Your task to perform on an android device: Play the latest video from the BBC Image 0: 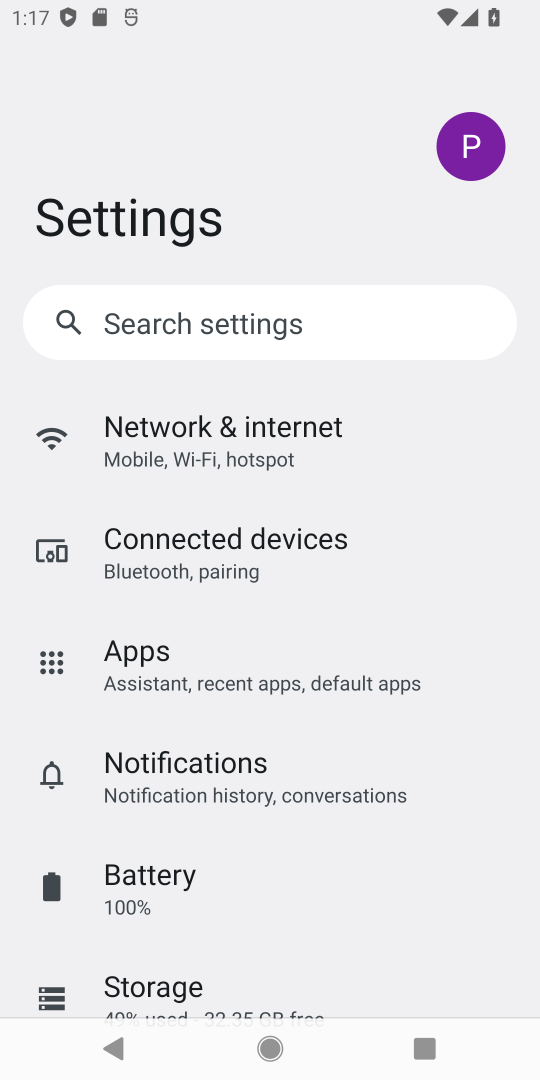
Step 0: press home button
Your task to perform on an android device: Play the latest video from the BBC Image 1: 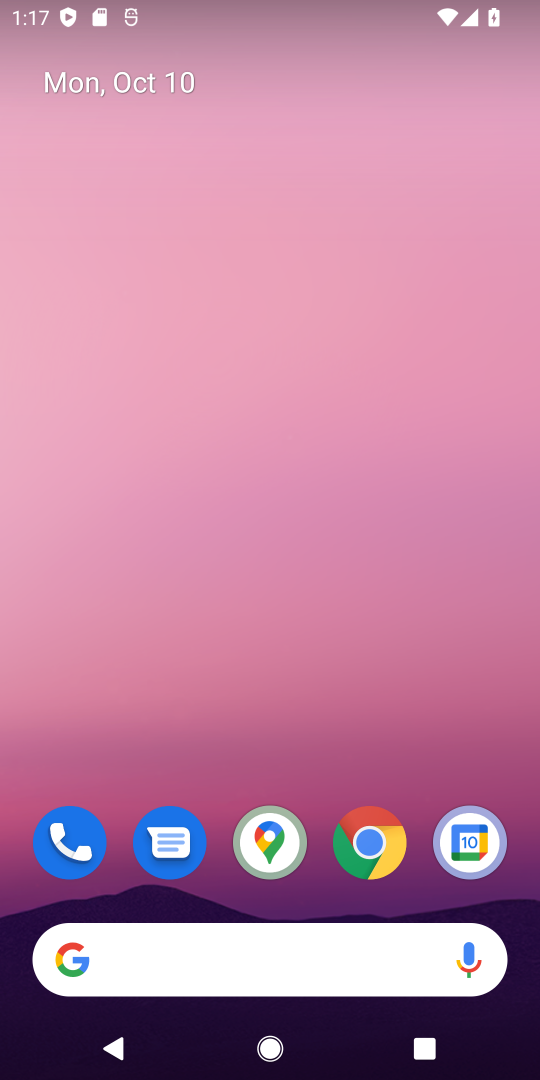
Step 1: click (381, 853)
Your task to perform on an android device: Play the latest video from the BBC Image 2: 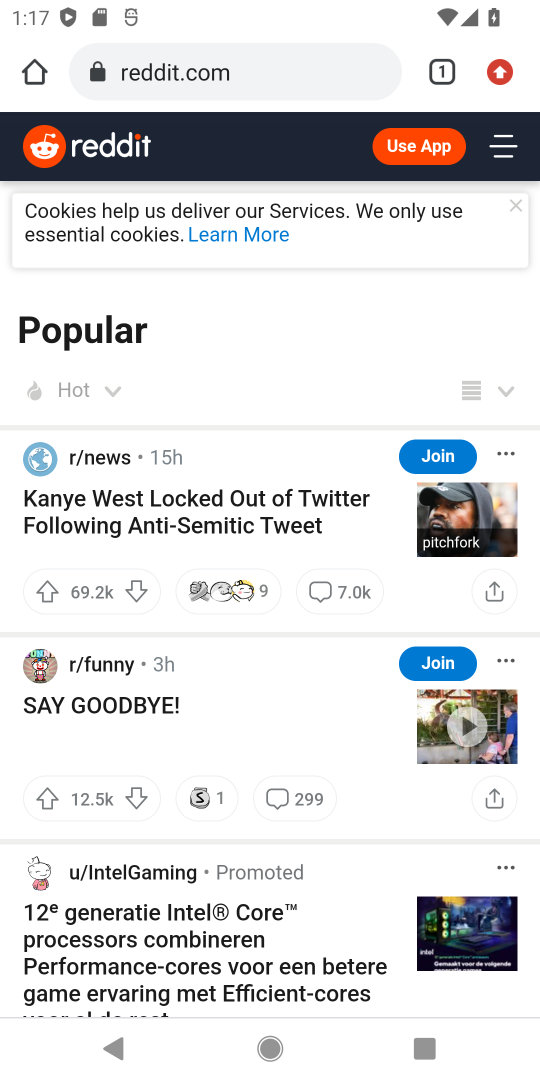
Step 2: click (259, 73)
Your task to perform on an android device: Play the latest video from the BBC Image 3: 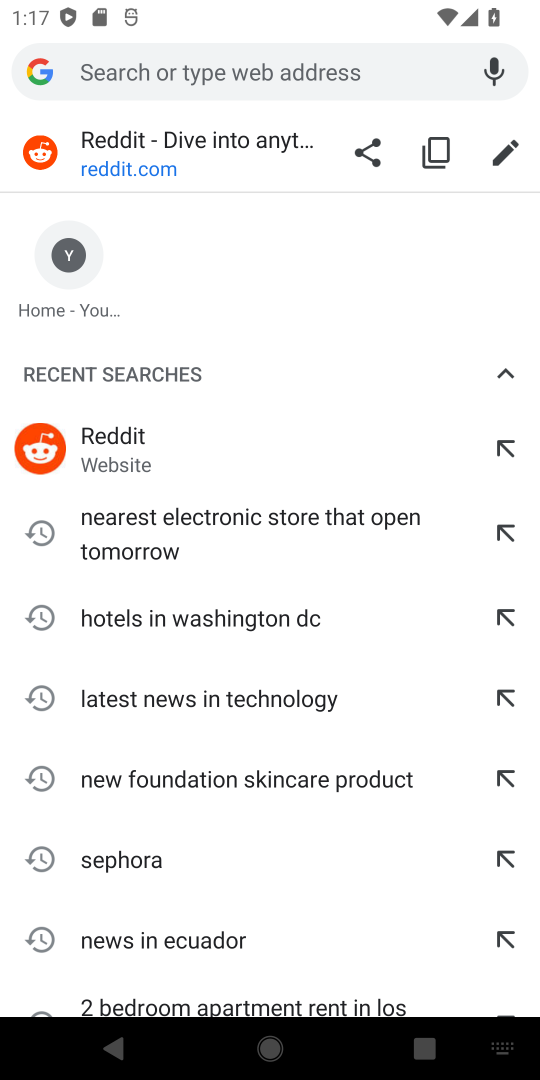
Step 3: press back button
Your task to perform on an android device: Play the latest video from the BBC Image 4: 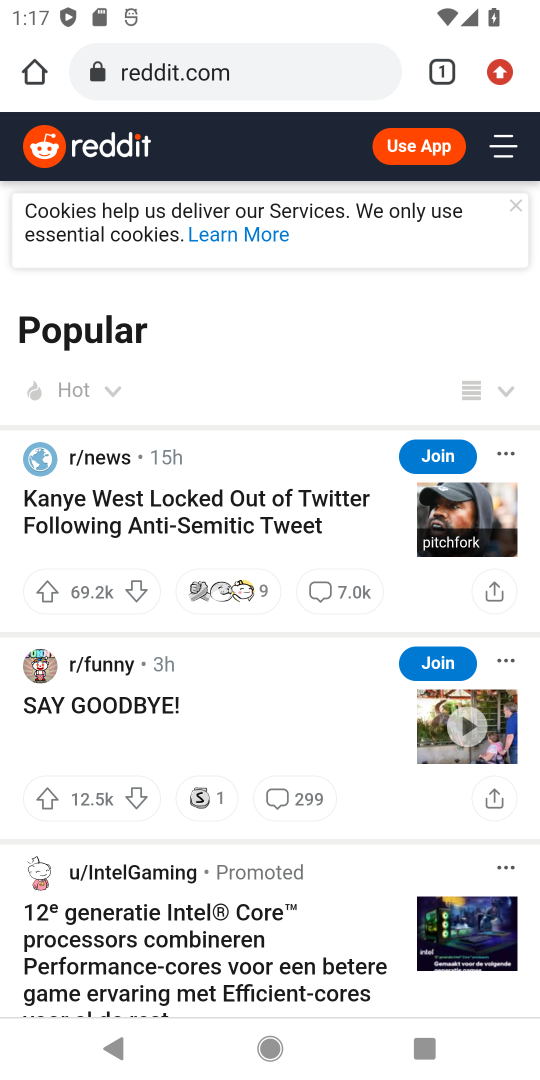
Step 4: click (27, 73)
Your task to perform on an android device: Play the latest video from the BBC Image 5: 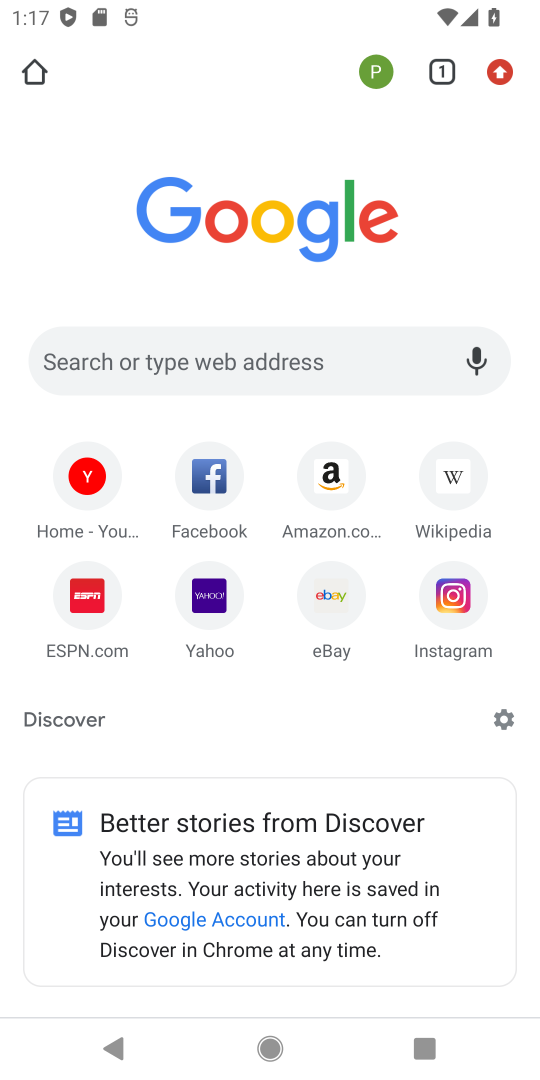
Step 5: click (214, 353)
Your task to perform on an android device: Play the latest video from the BBC Image 6: 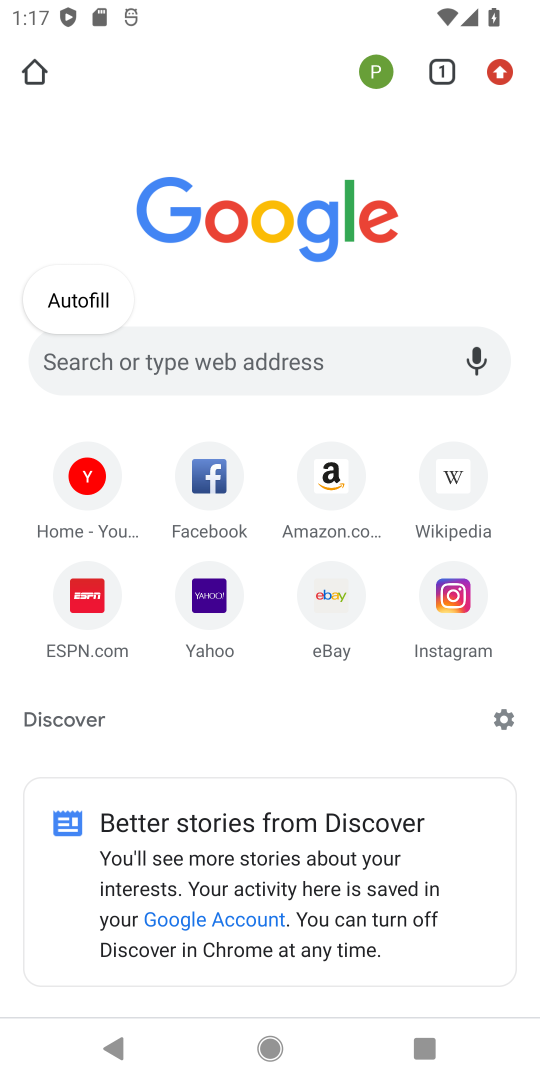
Step 6: click (224, 348)
Your task to perform on an android device: Play the latest video from the BBC Image 7: 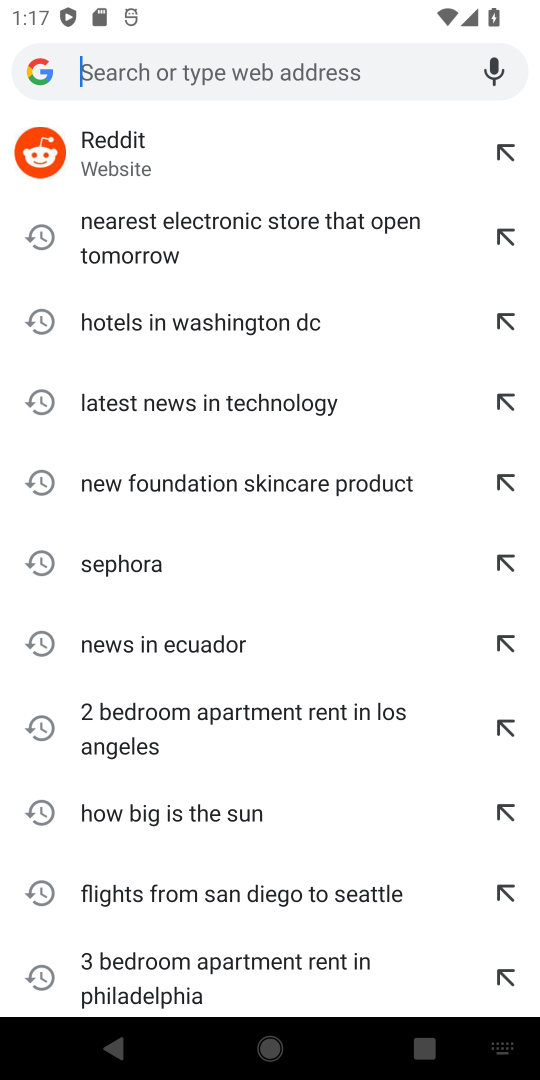
Step 7: type "bbc latest video"
Your task to perform on an android device: Play the latest video from the BBC Image 8: 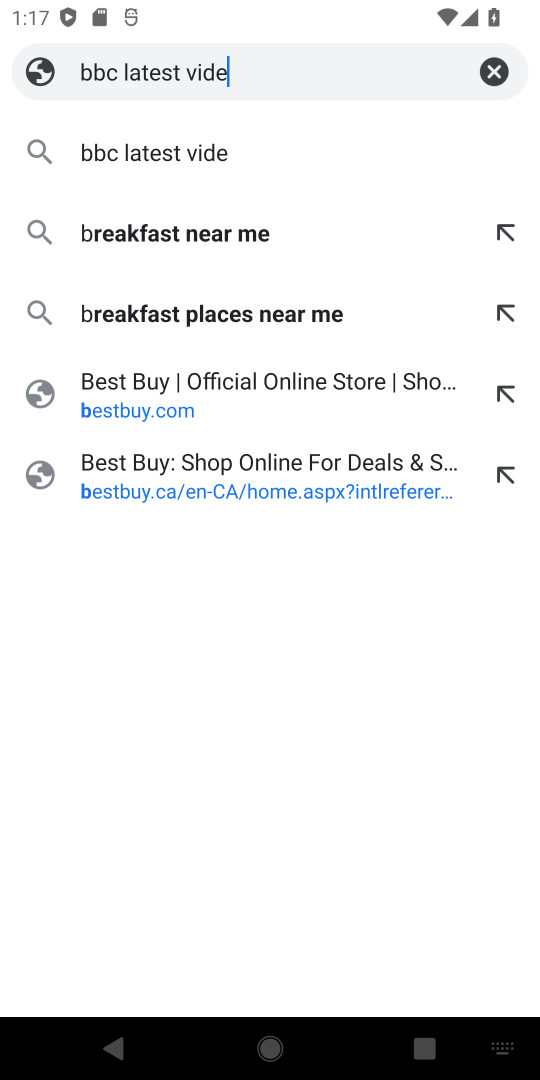
Step 8: type ""
Your task to perform on an android device: Play the latest video from the BBC Image 9: 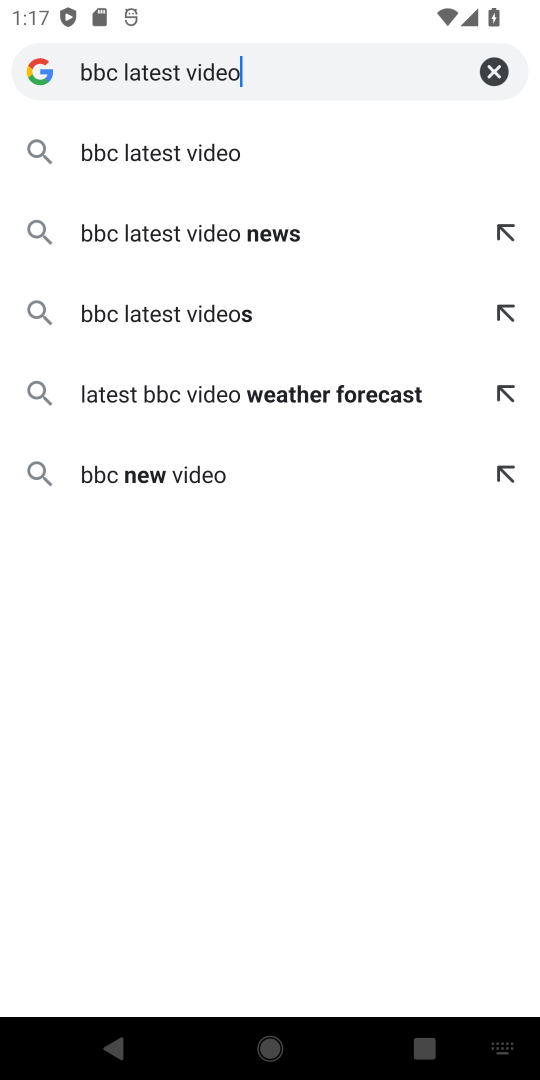
Step 9: press enter
Your task to perform on an android device: Play the latest video from the BBC Image 10: 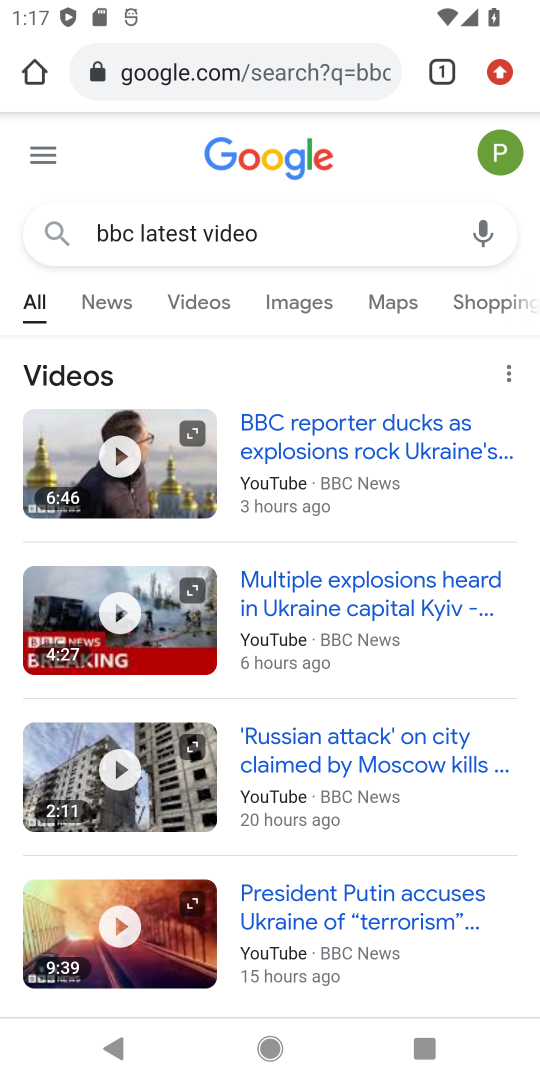
Step 10: drag from (365, 842) to (369, 752)
Your task to perform on an android device: Play the latest video from the BBC Image 11: 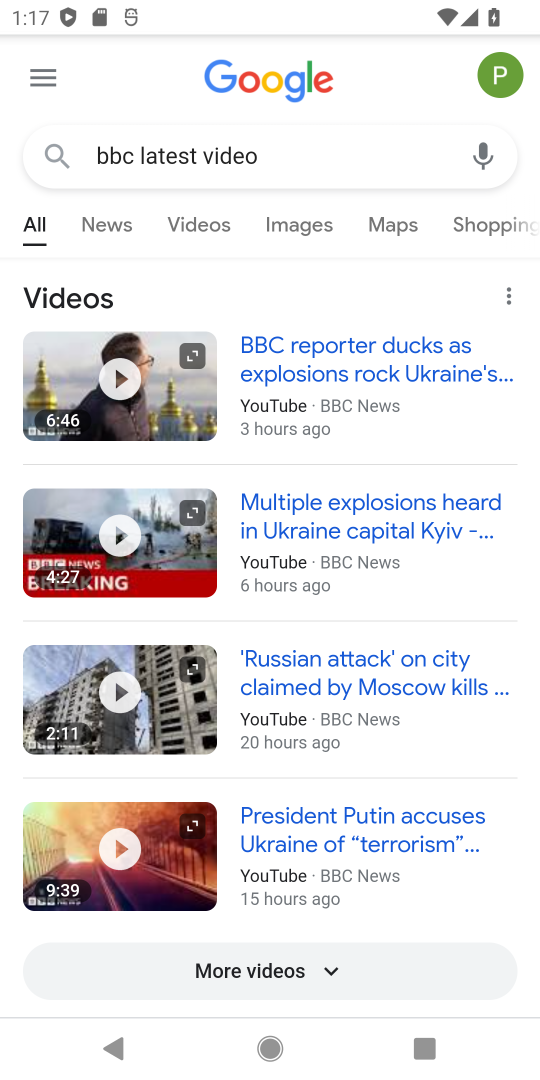
Step 11: click (356, 414)
Your task to perform on an android device: Play the latest video from the BBC Image 12: 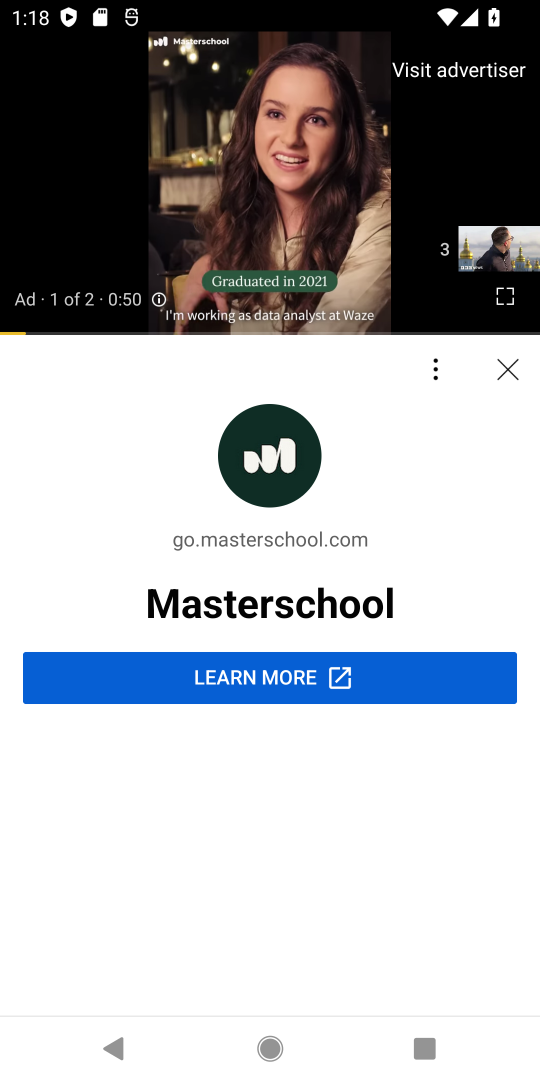
Step 12: click (494, 370)
Your task to perform on an android device: Play the latest video from the BBC Image 13: 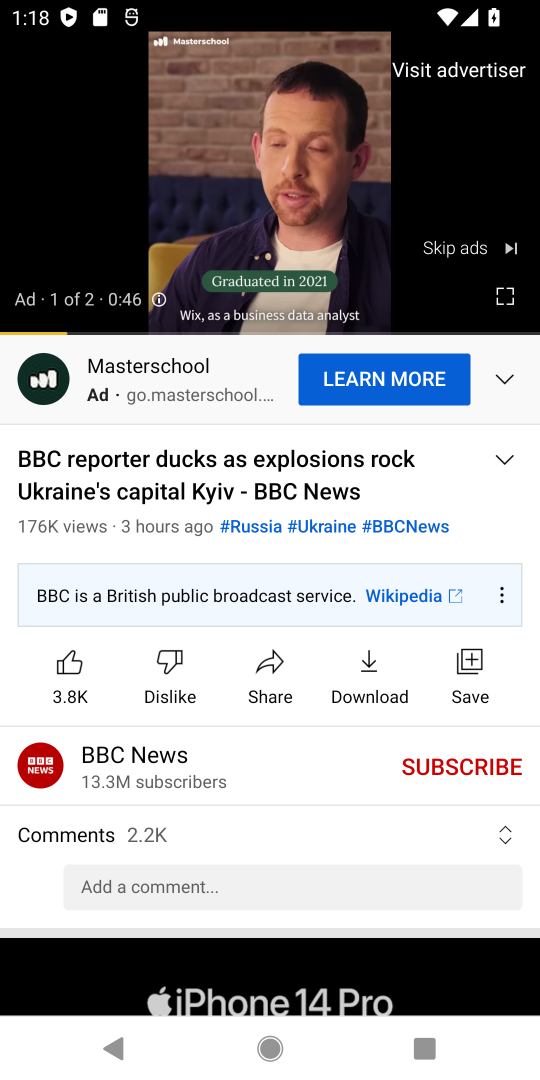
Step 13: click (486, 262)
Your task to perform on an android device: Play the latest video from the BBC Image 14: 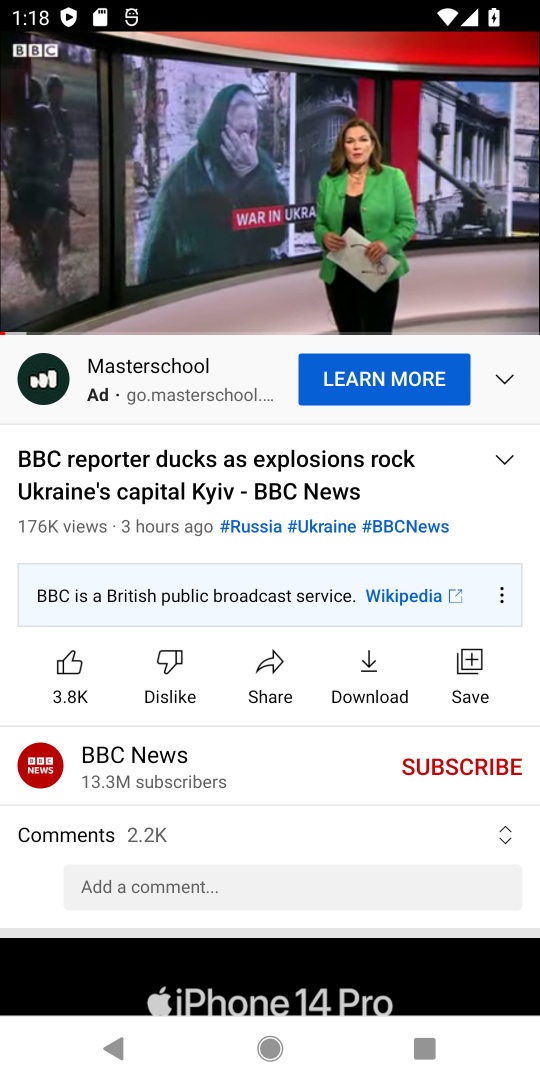
Step 14: task complete